Your task to perform on an android device: Add "acer nitro" to the cart on target, then select checkout. Image 0: 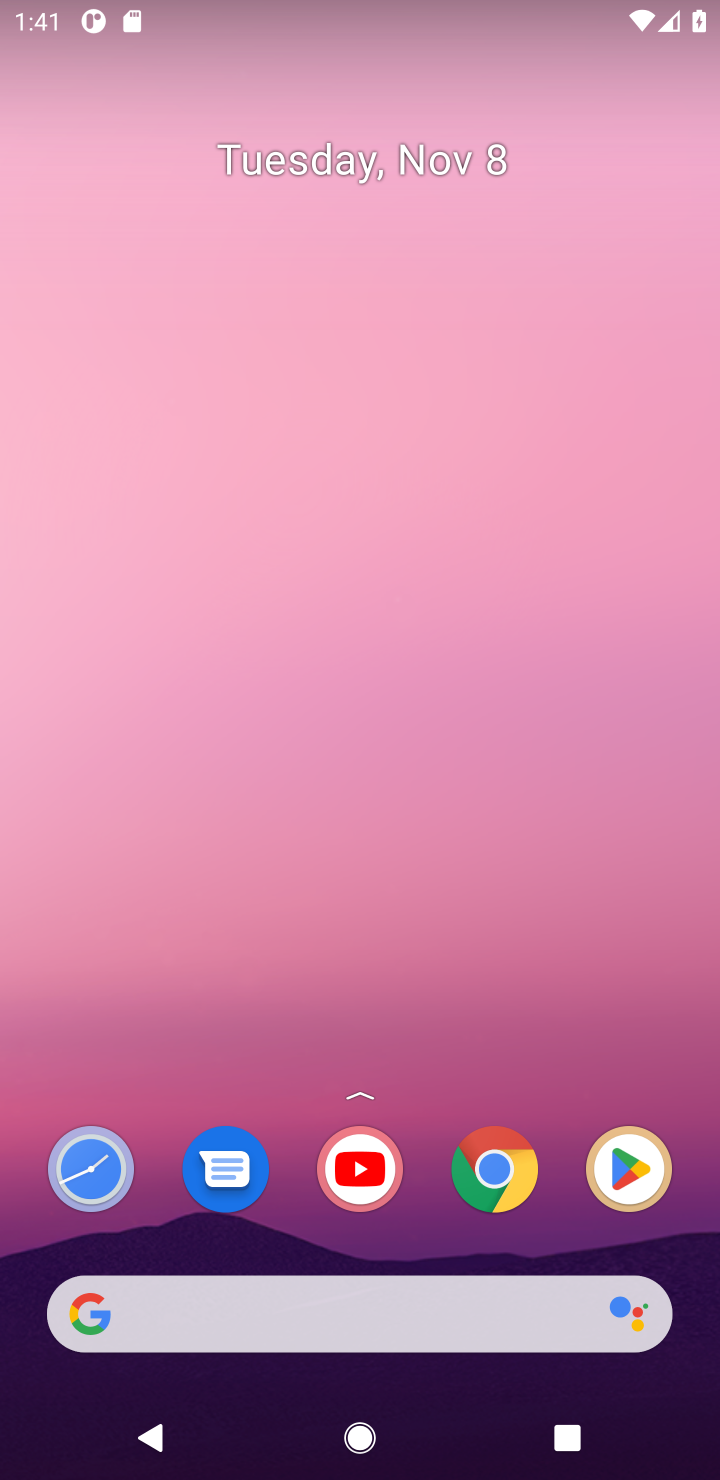
Step 0: click (504, 1164)
Your task to perform on an android device: Add "acer nitro" to the cart on target, then select checkout. Image 1: 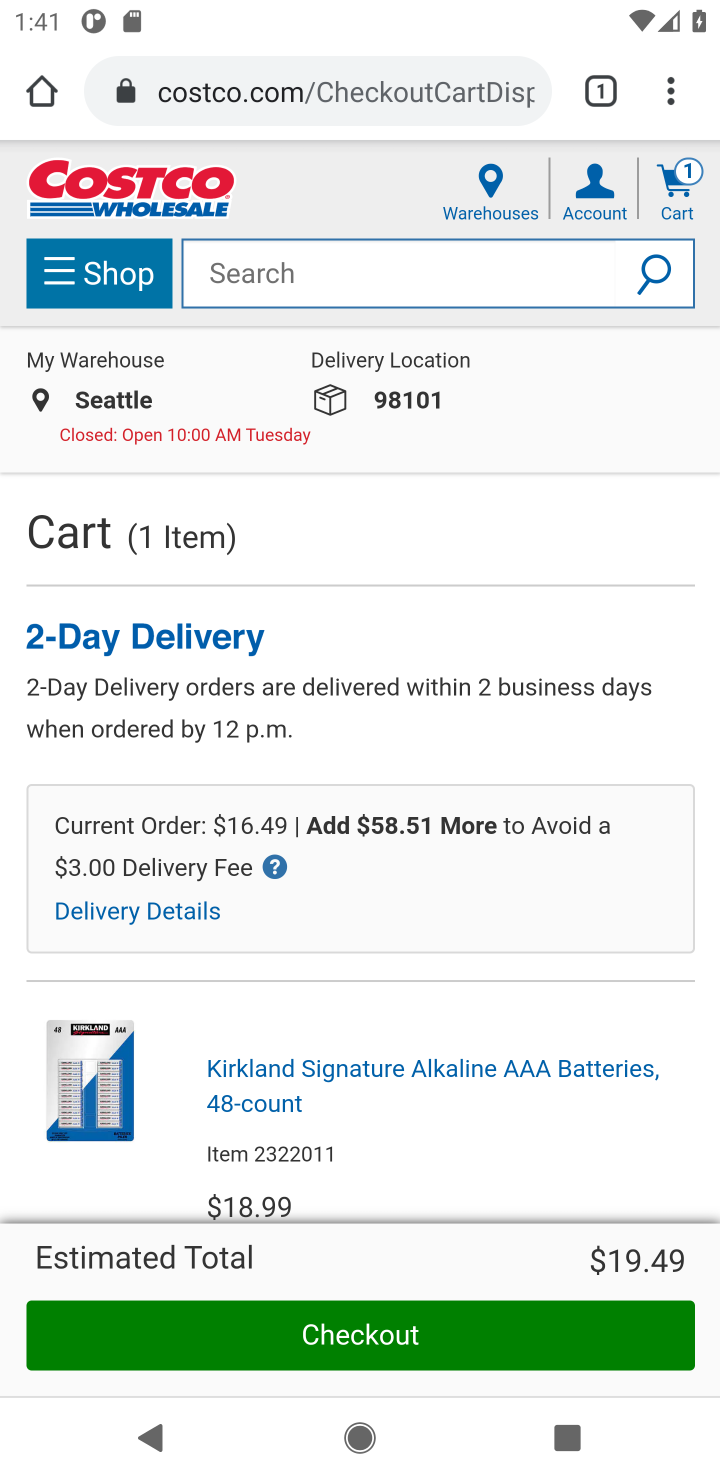
Step 1: click (328, 109)
Your task to perform on an android device: Add "acer nitro" to the cart on target, then select checkout. Image 2: 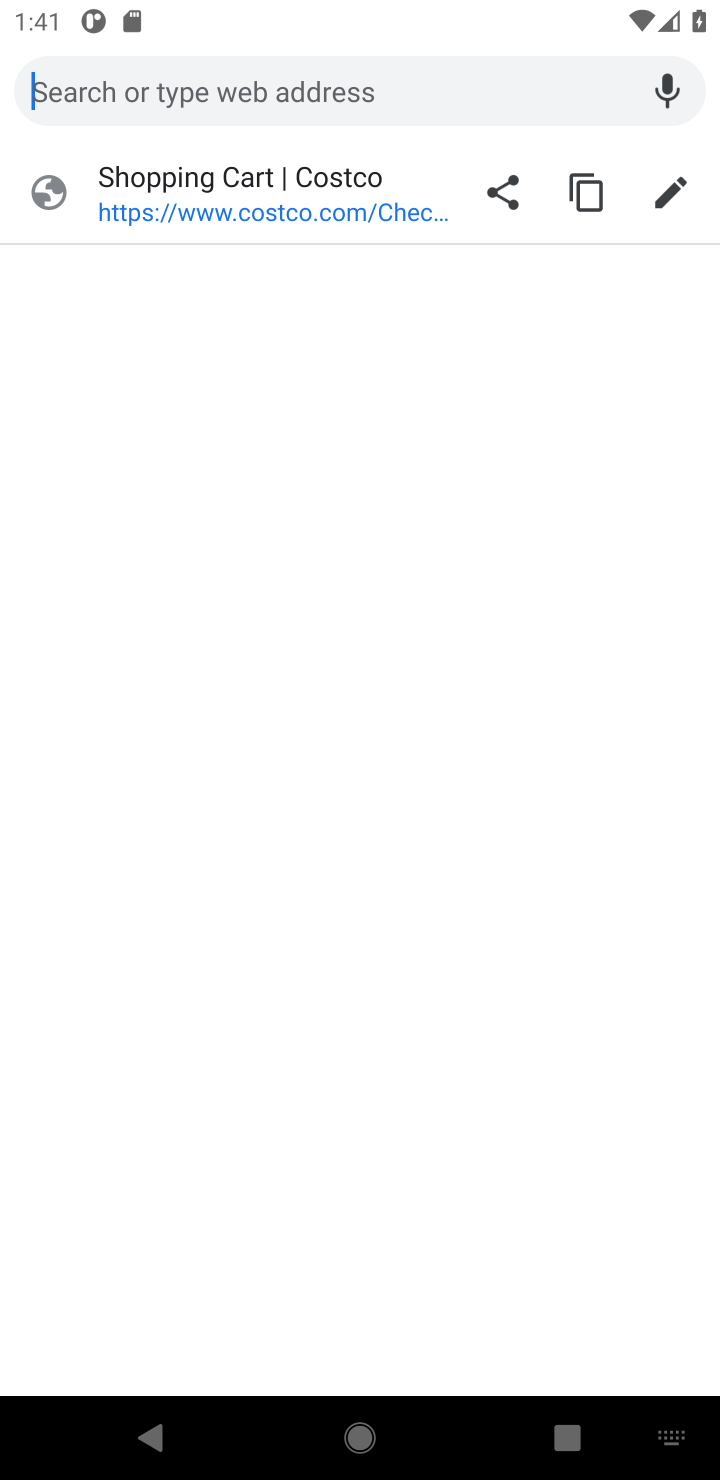
Step 2: type "target.com"
Your task to perform on an android device: Add "acer nitro" to the cart on target, then select checkout. Image 3: 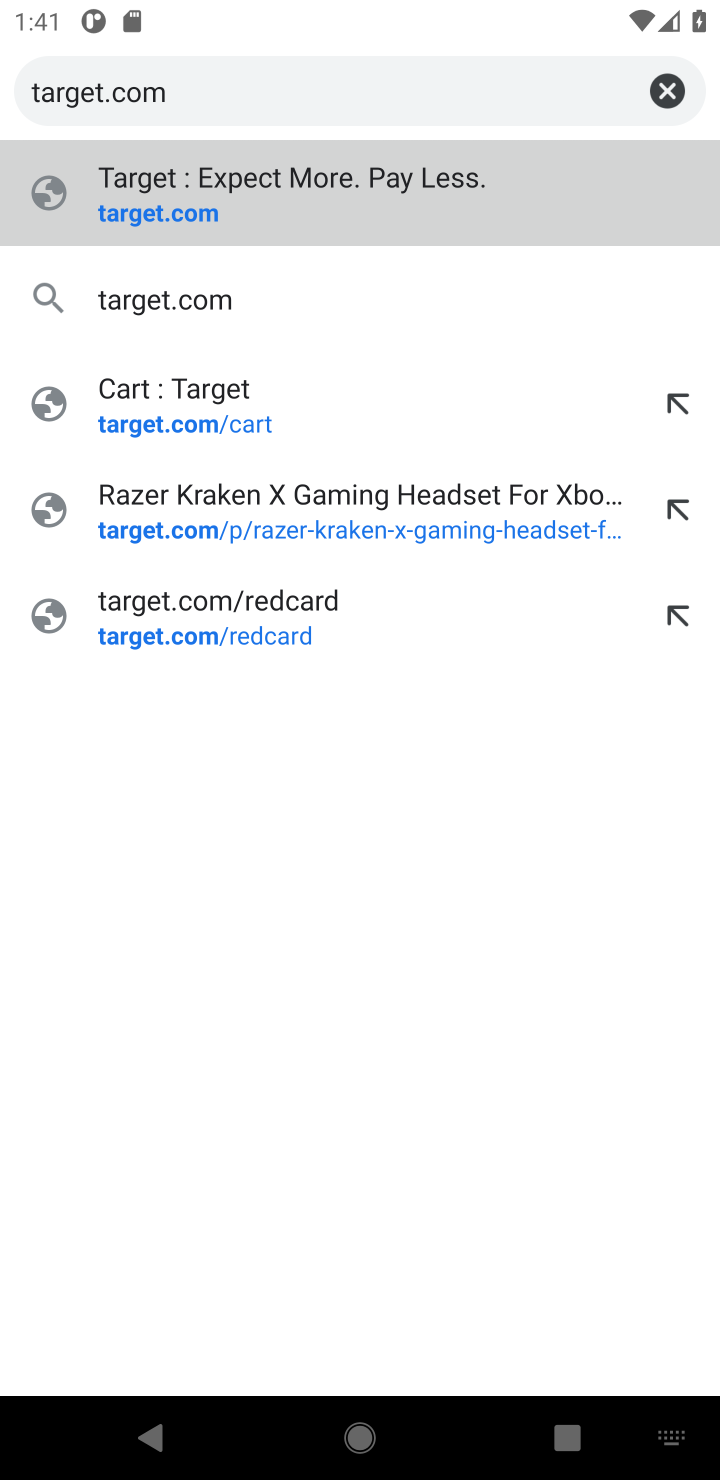
Step 3: click (292, 211)
Your task to perform on an android device: Add "acer nitro" to the cart on target, then select checkout. Image 4: 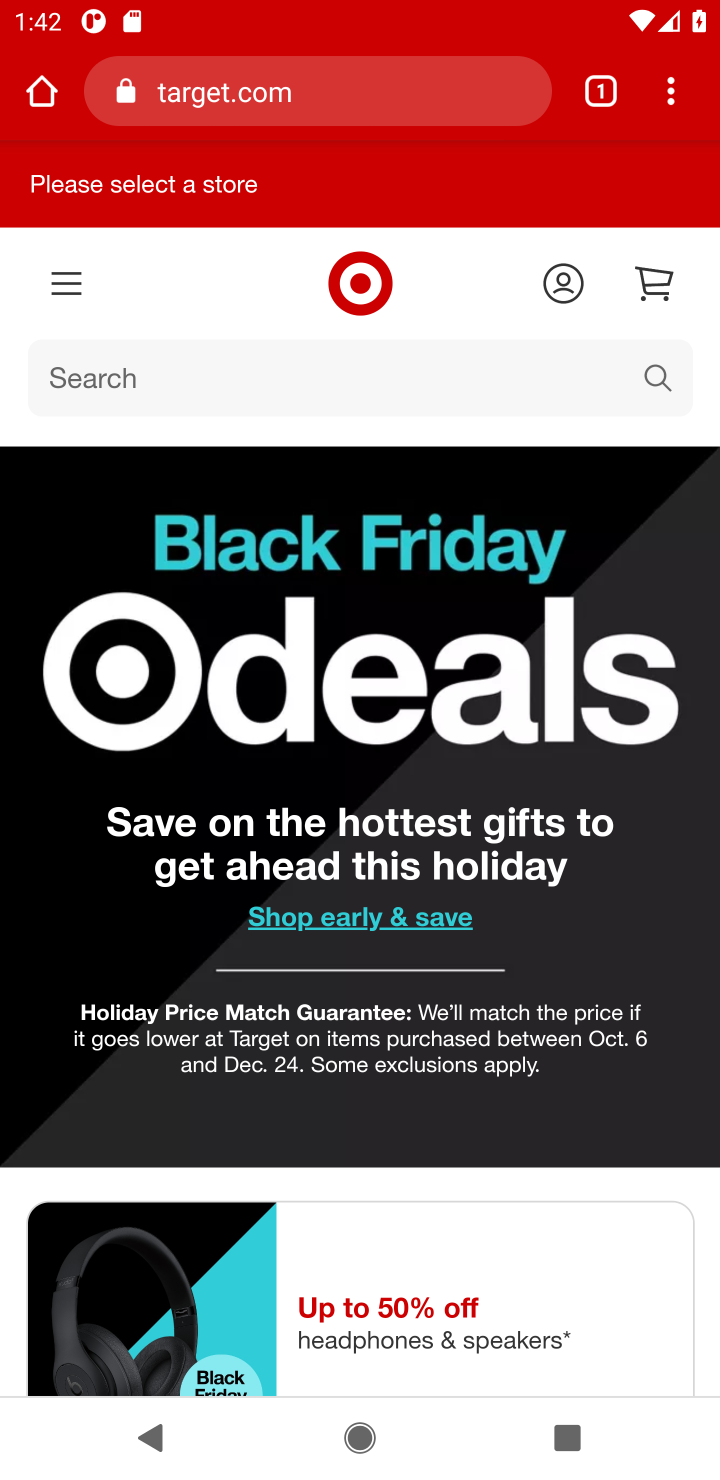
Step 4: click (462, 374)
Your task to perform on an android device: Add "acer nitro" to the cart on target, then select checkout. Image 5: 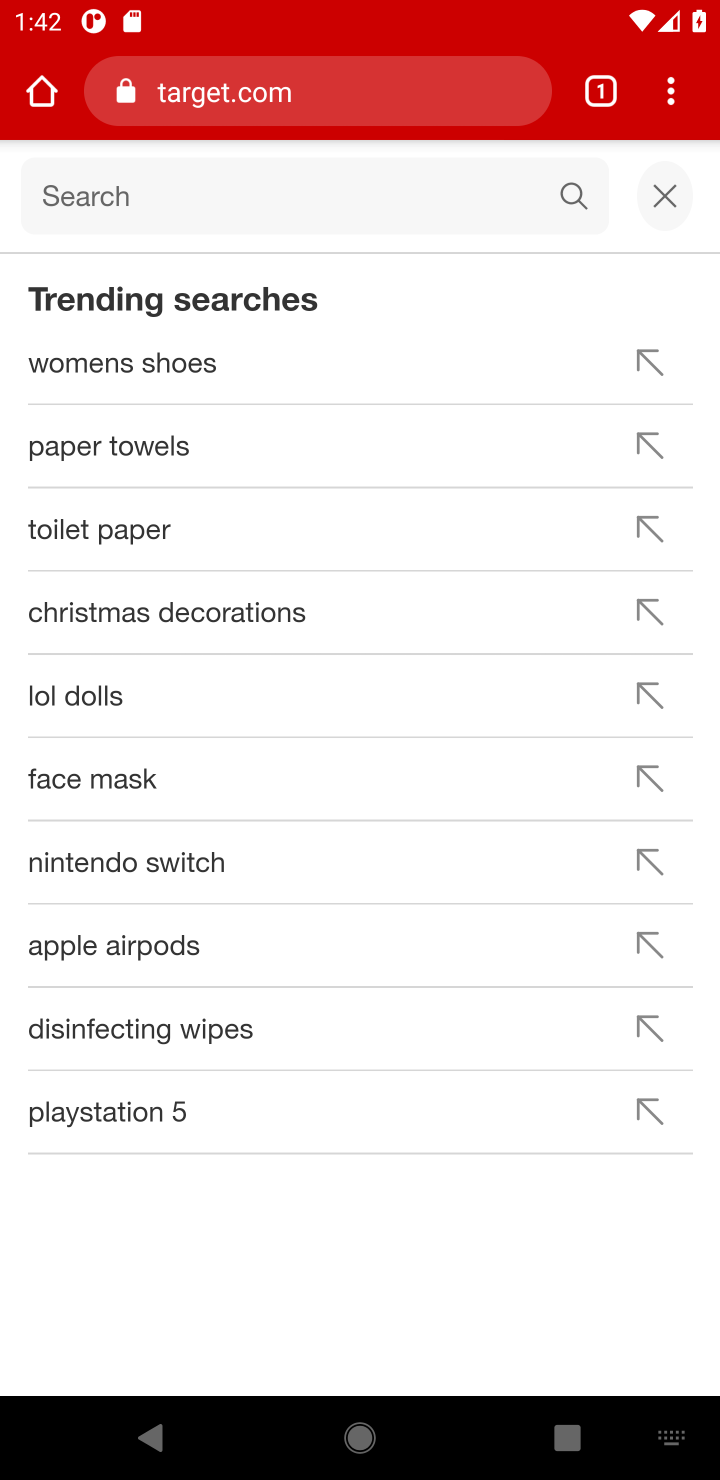
Step 5: type "acer nitro"
Your task to perform on an android device: Add "acer nitro" to the cart on target, then select checkout. Image 6: 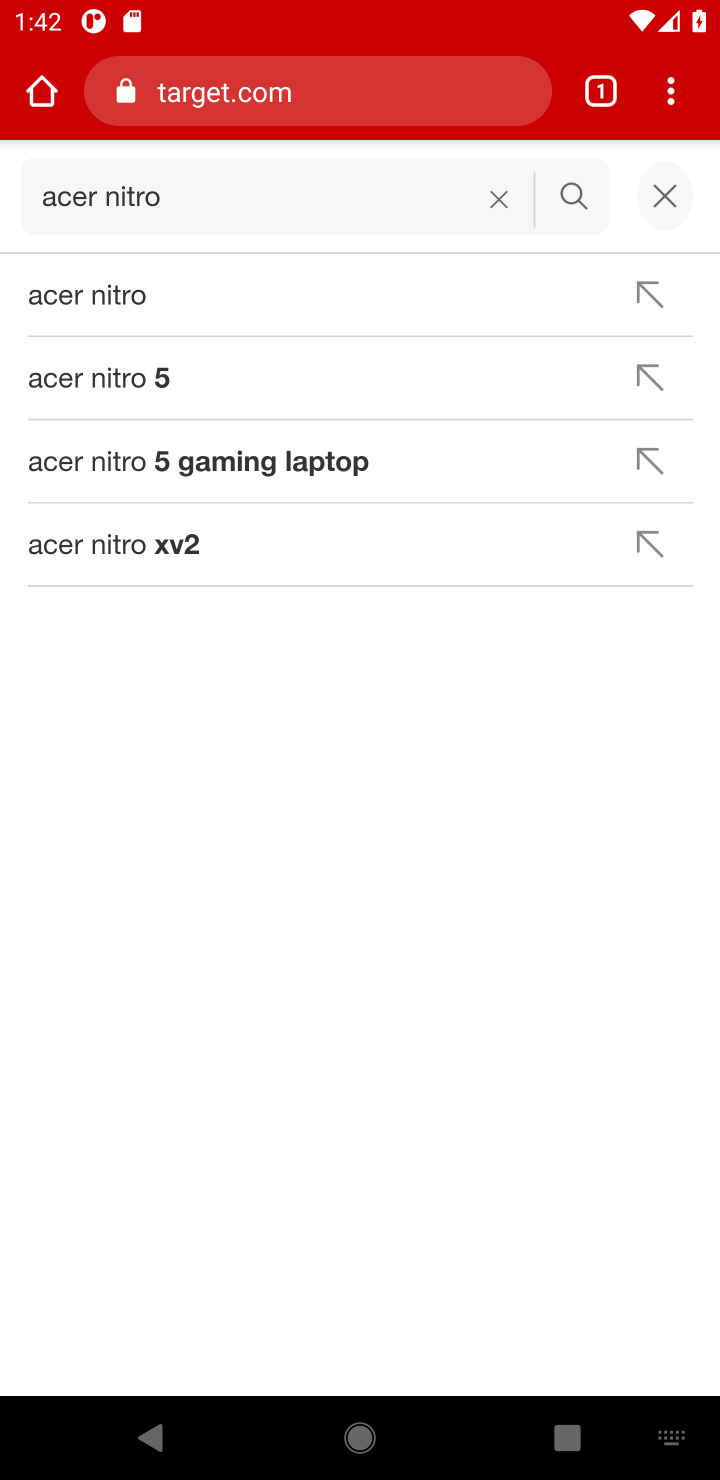
Step 6: press enter
Your task to perform on an android device: Add "acer nitro" to the cart on target, then select checkout. Image 7: 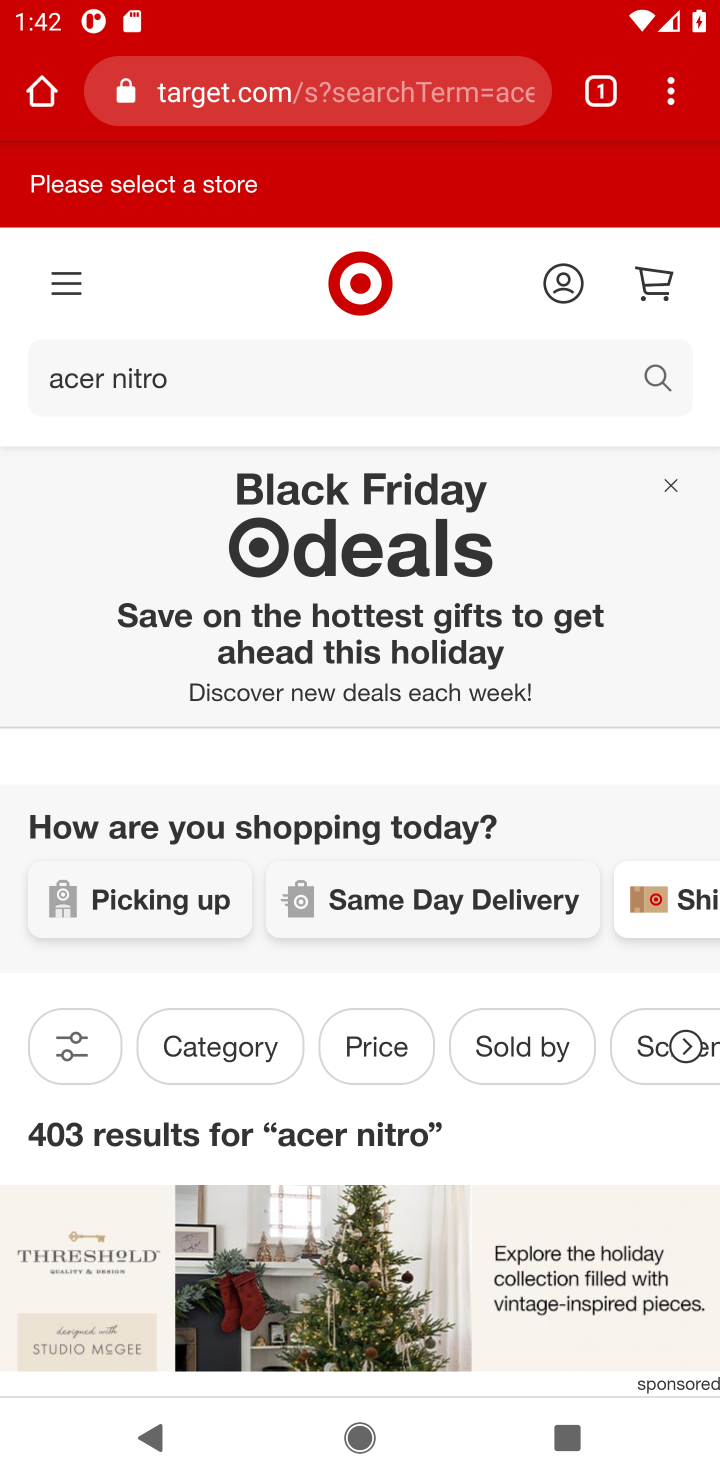
Step 7: drag from (328, 1084) to (189, 445)
Your task to perform on an android device: Add "acer nitro" to the cart on target, then select checkout. Image 8: 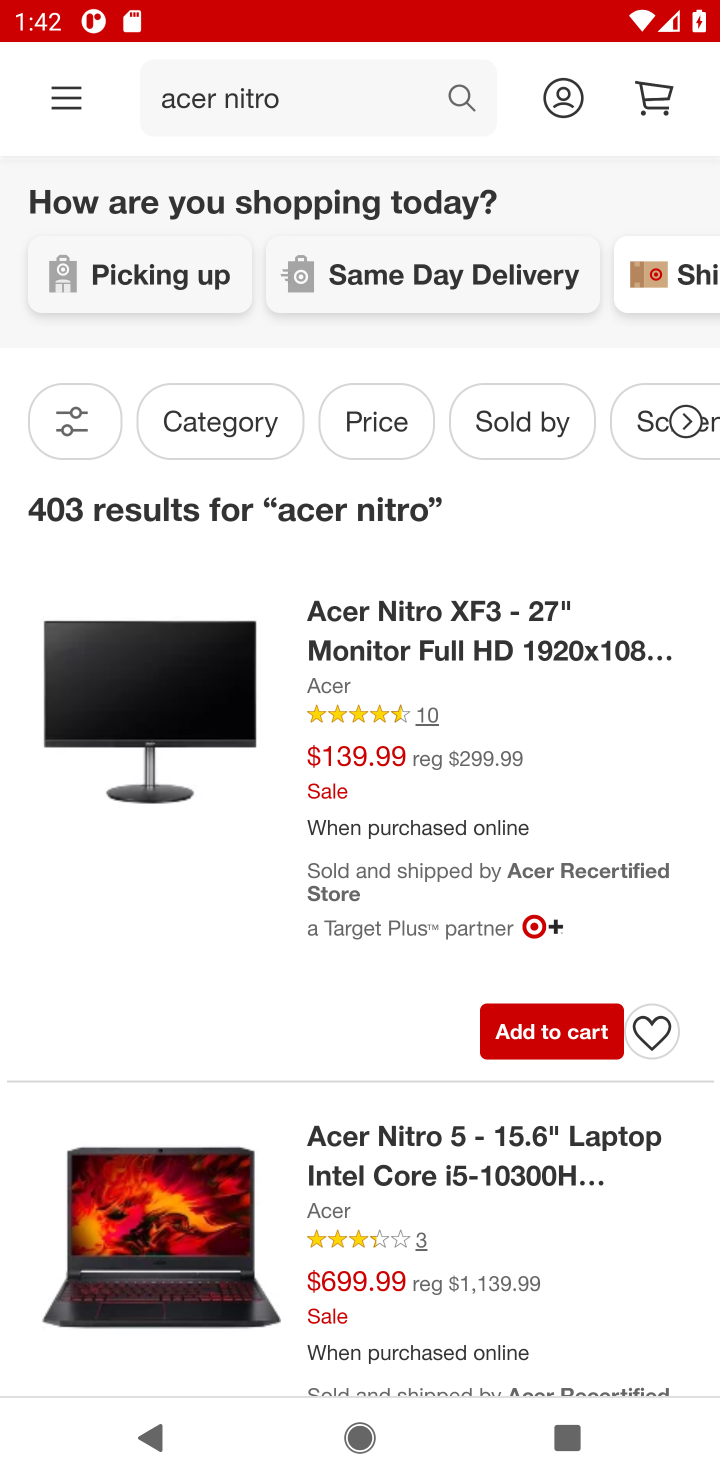
Step 8: click (544, 1040)
Your task to perform on an android device: Add "acer nitro" to the cart on target, then select checkout. Image 9: 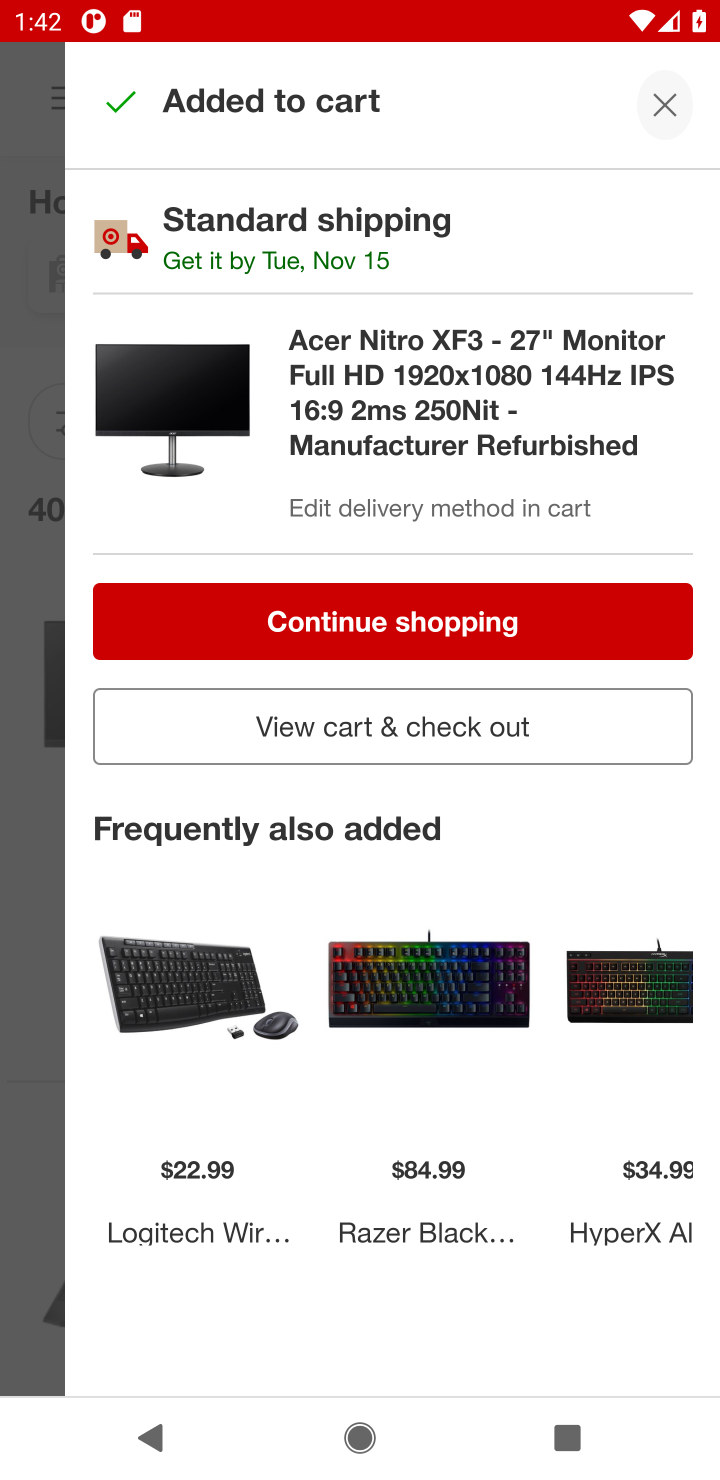
Step 9: click (468, 748)
Your task to perform on an android device: Add "acer nitro" to the cart on target, then select checkout. Image 10: 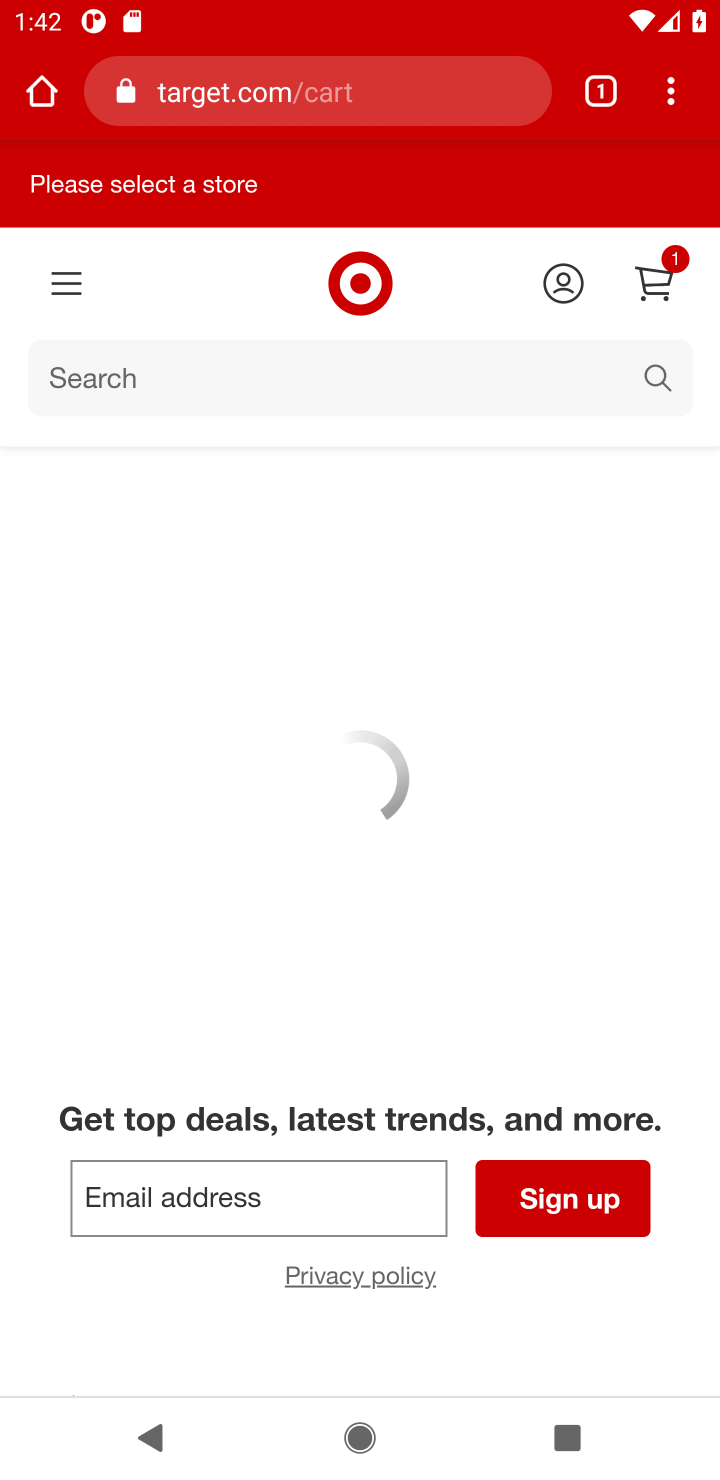
Step 10: task complete